Your task to perform on an android device: uninstall "NewsBreak: Local News & Alerts" Image 0: 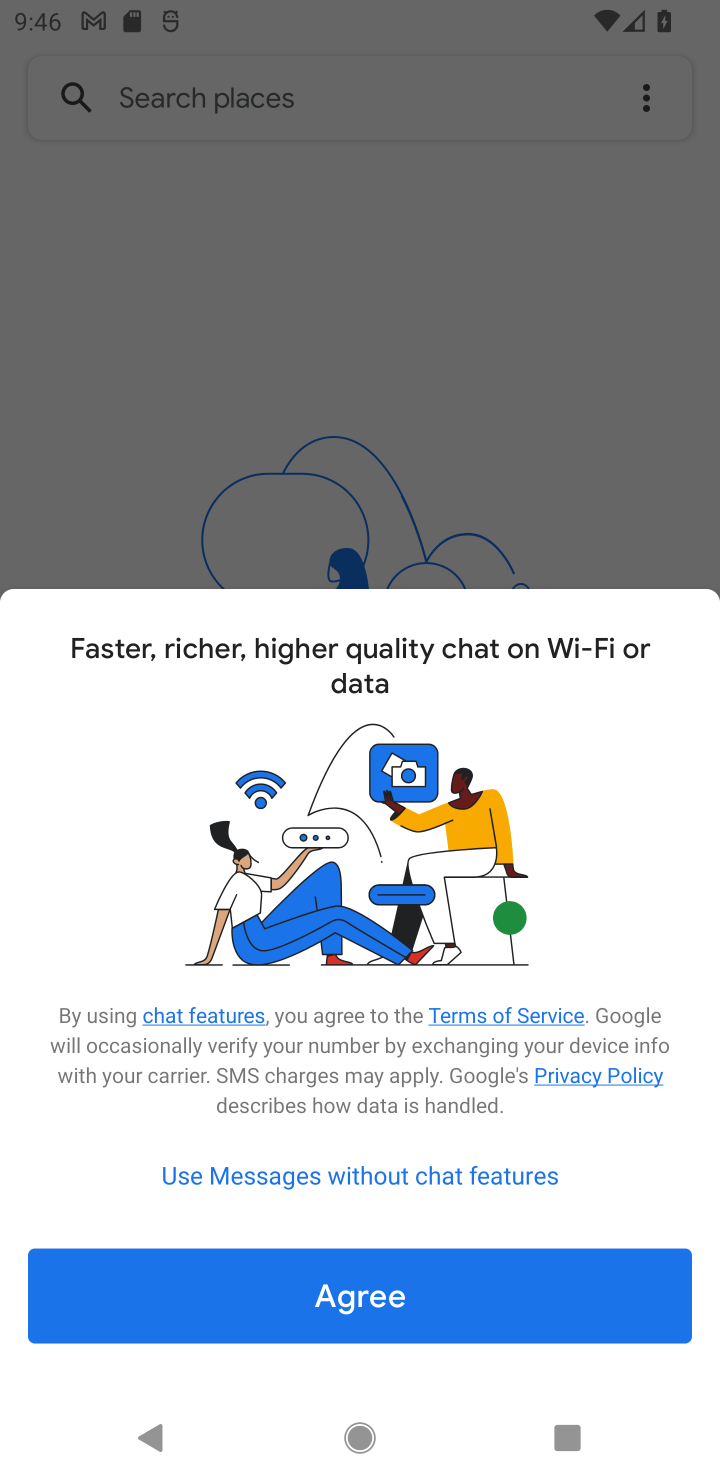
Step 0: press back button
Your task to perform on an android device: uninstall "NewsBreak: Local News & Alerts" Image 1: 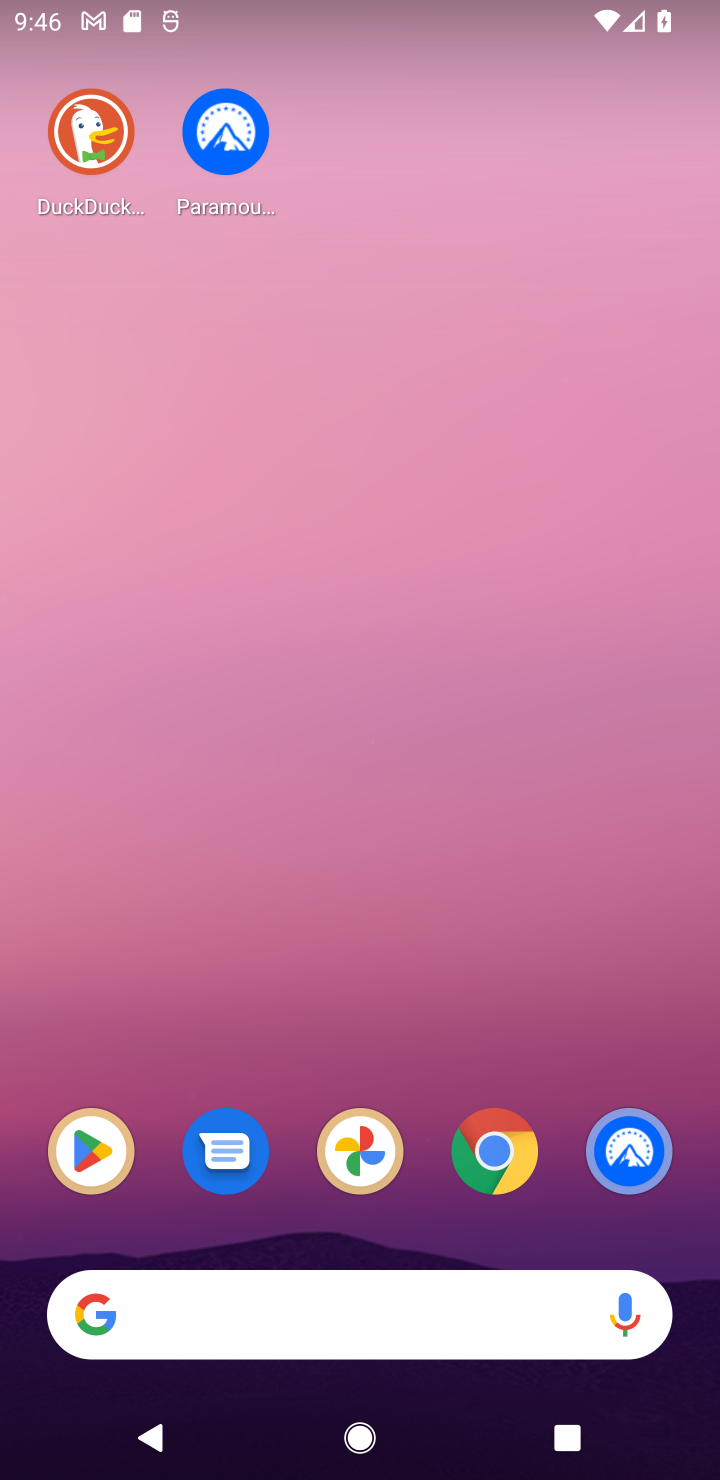
Step 1: drag from (341, 1230) to (303, 139)
Your task to perform on an android device: uninstall "NewsBreak: Local News & Alerts" Image 2: 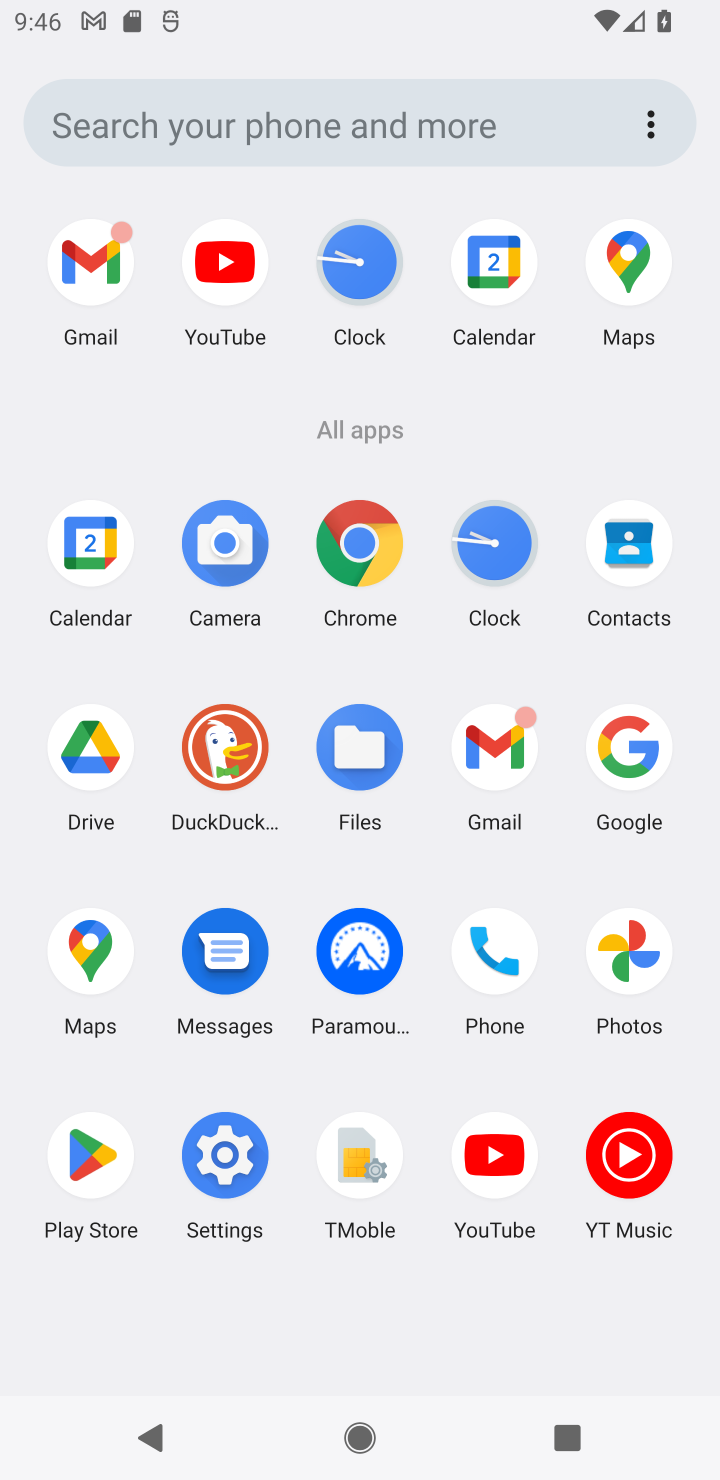
Step 2: click (103, 1152)
Your task to perform on an android device: uninstall "NewsBreak: Local News & Alerts" Image 3: 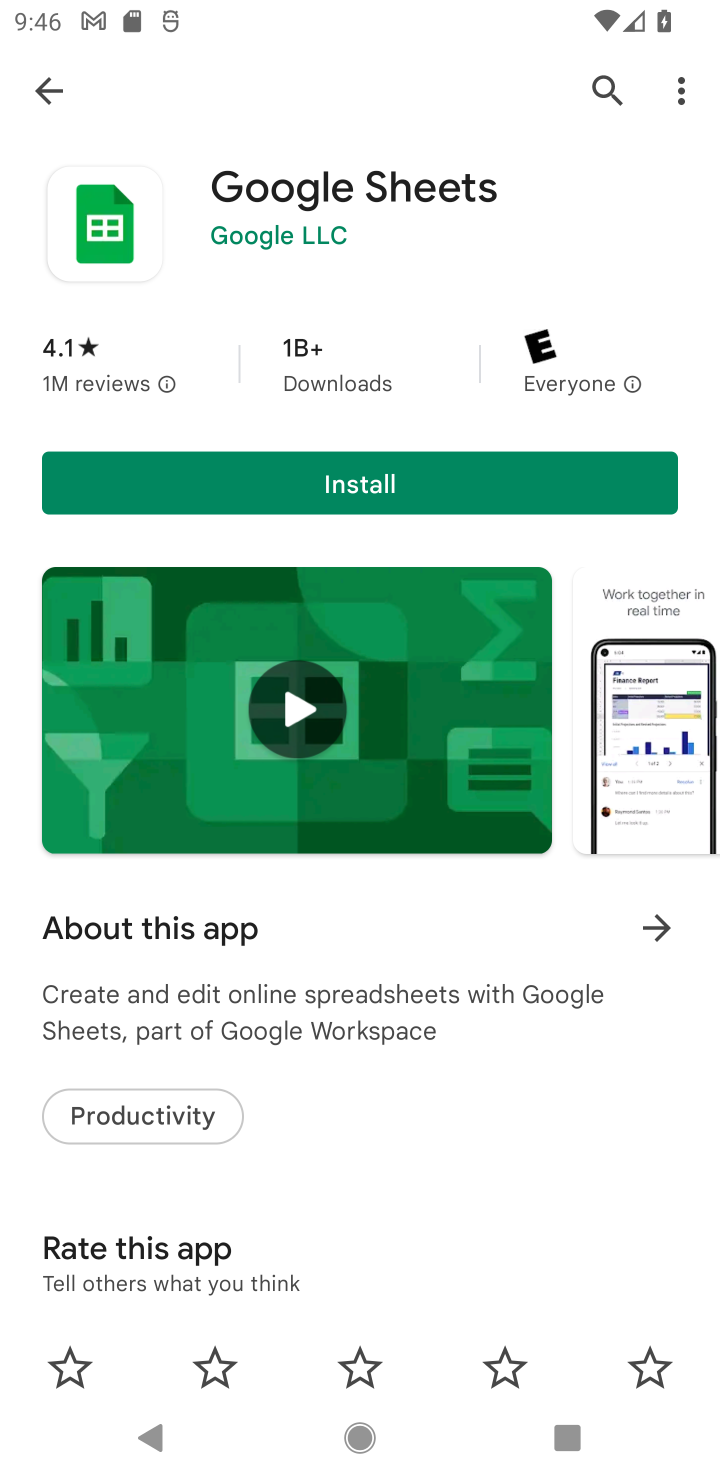
Step 3: click (43, 88)
Your task to perform on an android device: uninstall "NewsBreak: Local News & Alerts" Image 4: 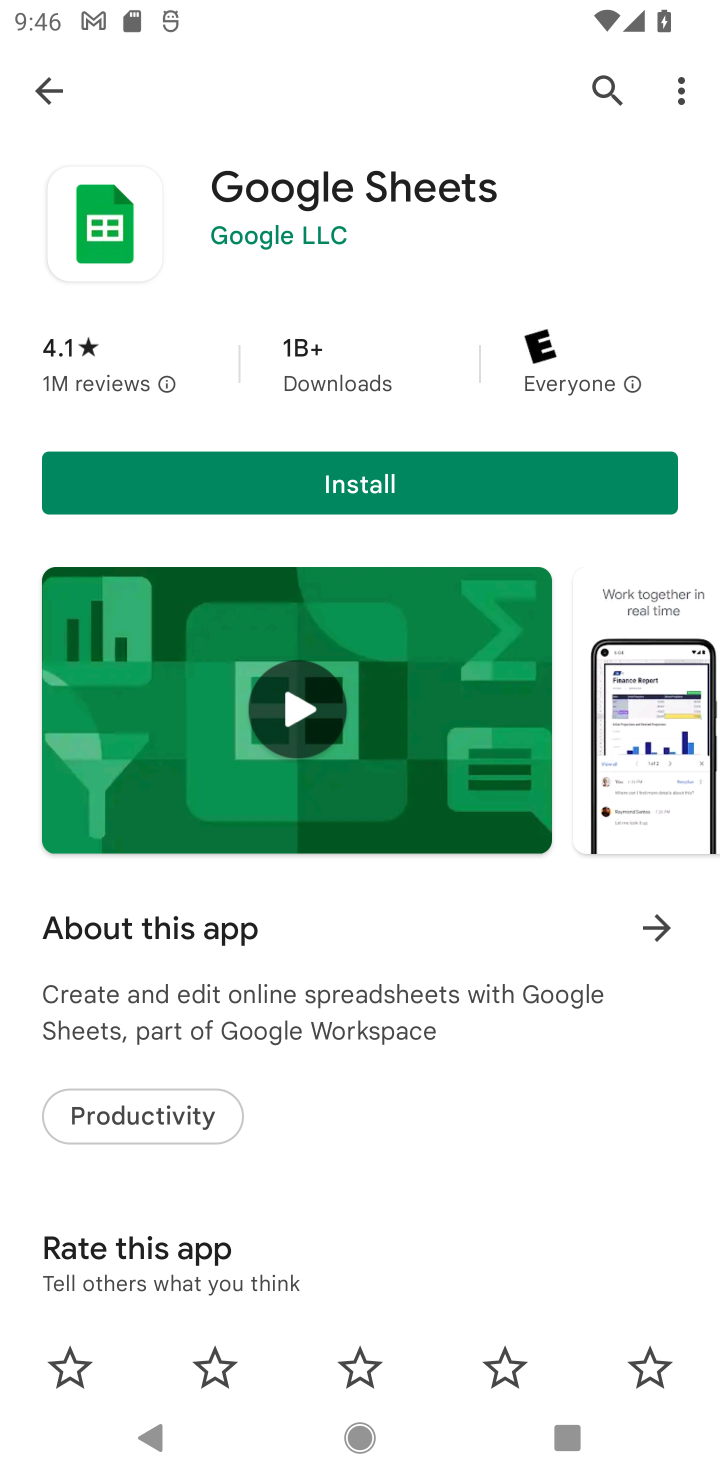
Step 4: click (58, 97)
Your task to perform on an android device: uninstall "NewsBreak: Local News & Alerts" Image 5: 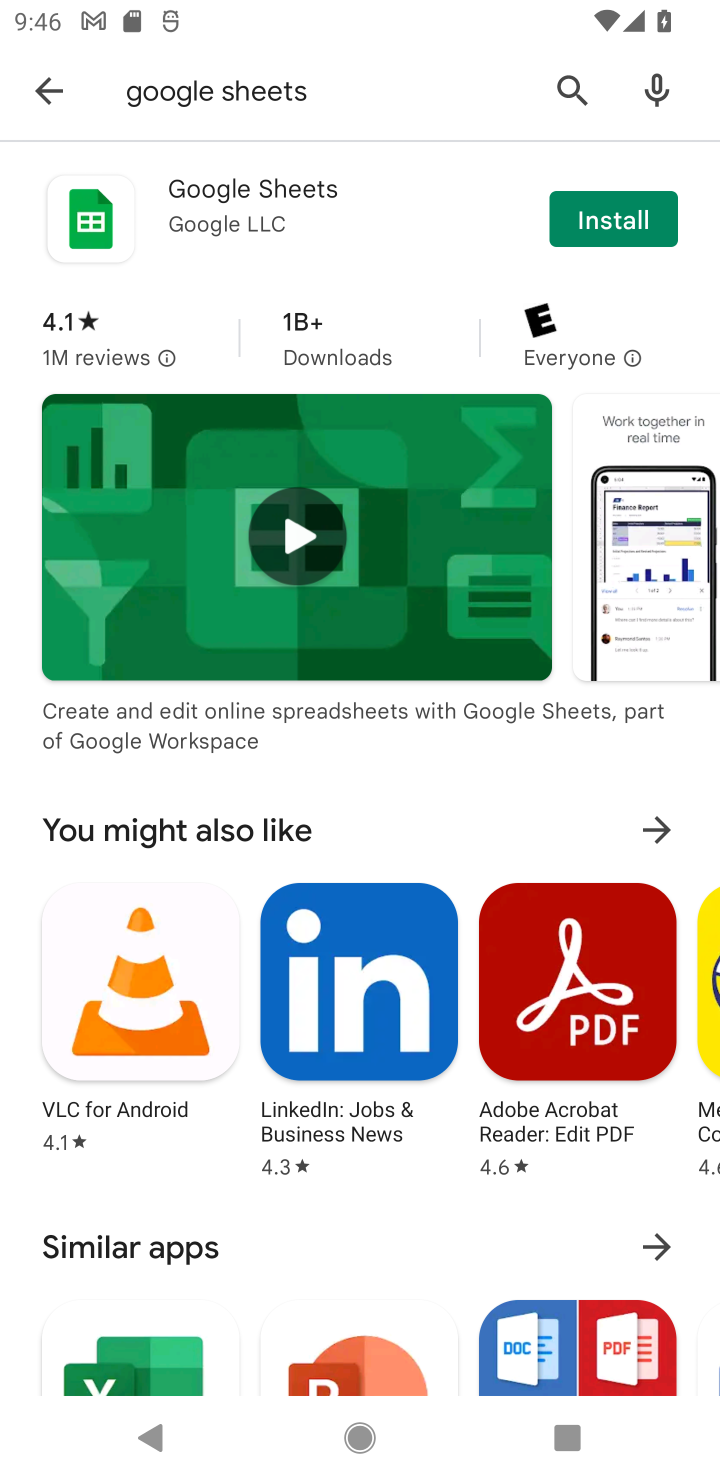
Step 5: click (563, 112)
Your task to perform on an android device: uninstall "NewsBreak: Local News & Alerts" Image 6: 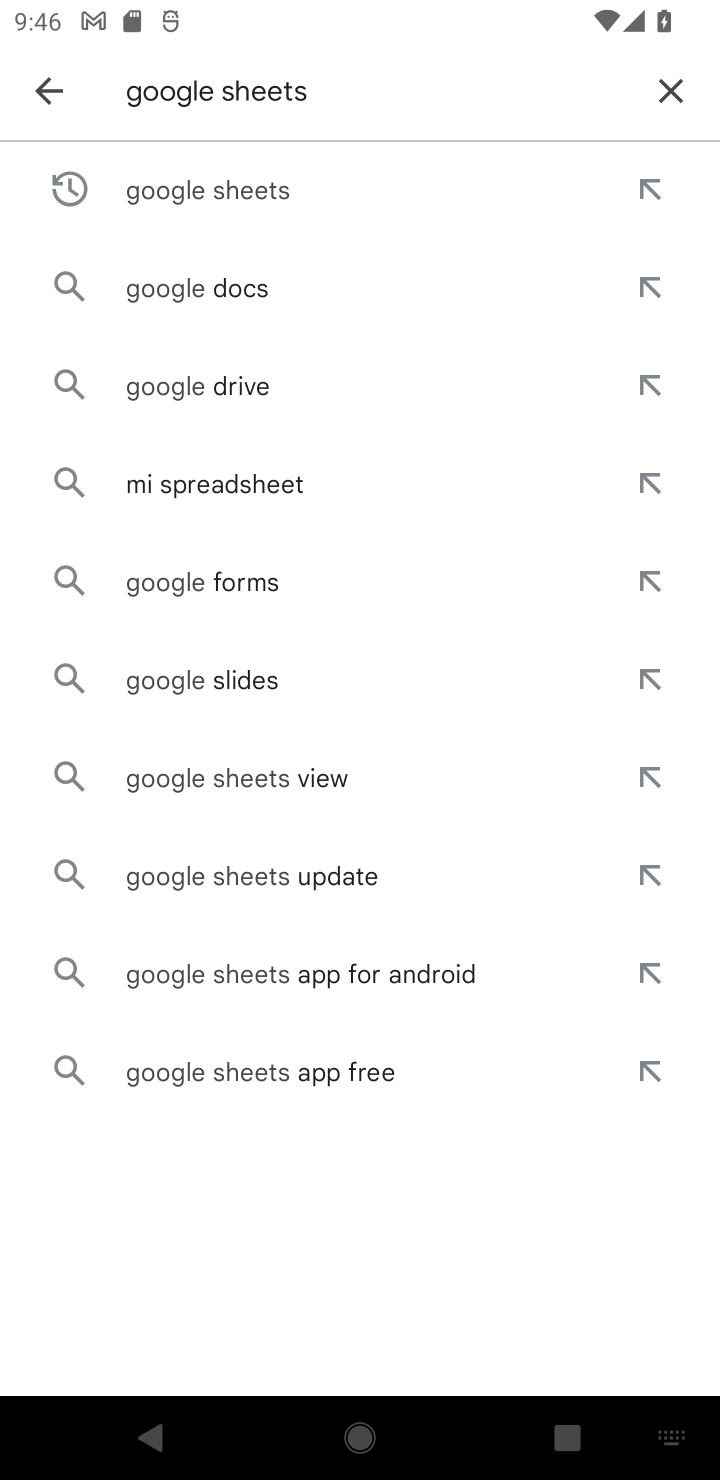
Step 6: click (670, 80)
Your task to perform on an android device: uninstall "NewsBreak: Local News & Alerts" Image 7: 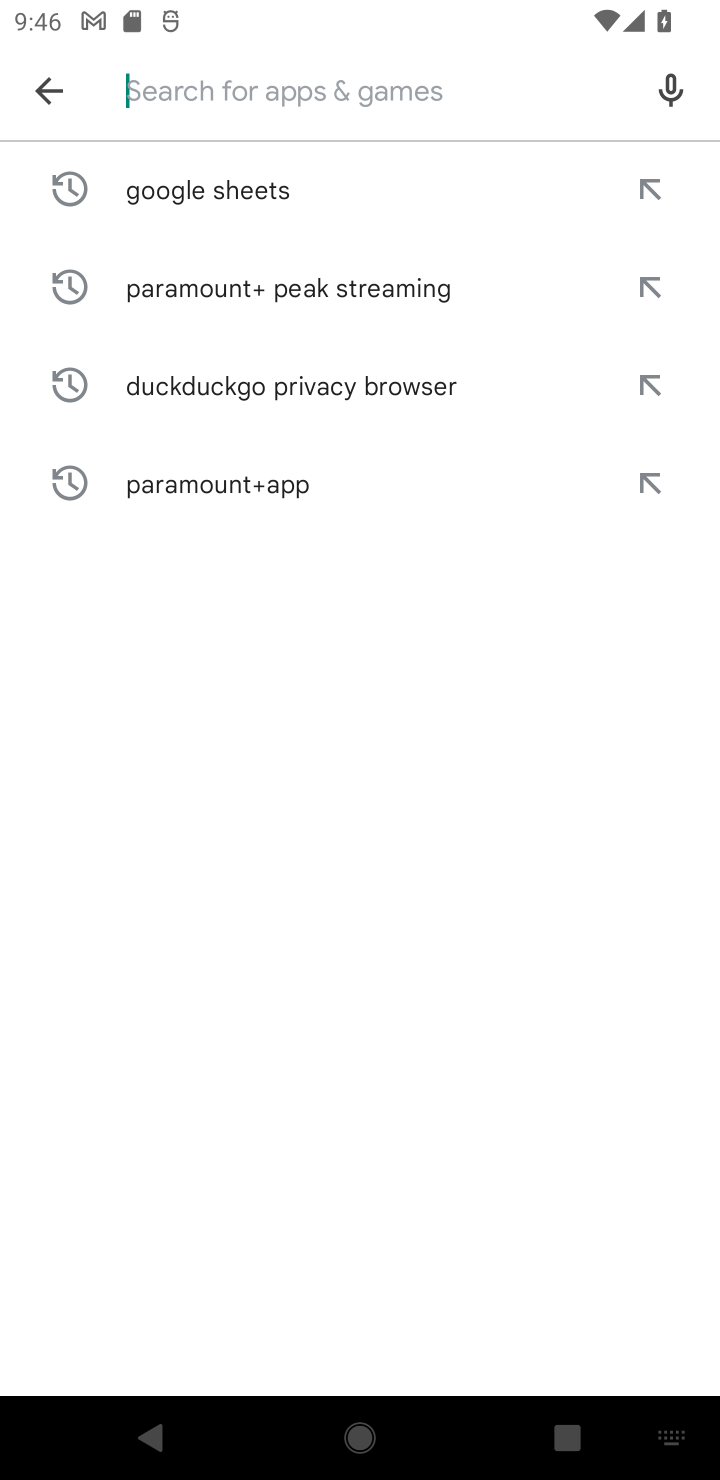
Step 7: type "NewsBreak: Local News & Alerts"
Your task to perform on an android device: uninstall "NewsBreak: Local News & Alerts" Image 8: 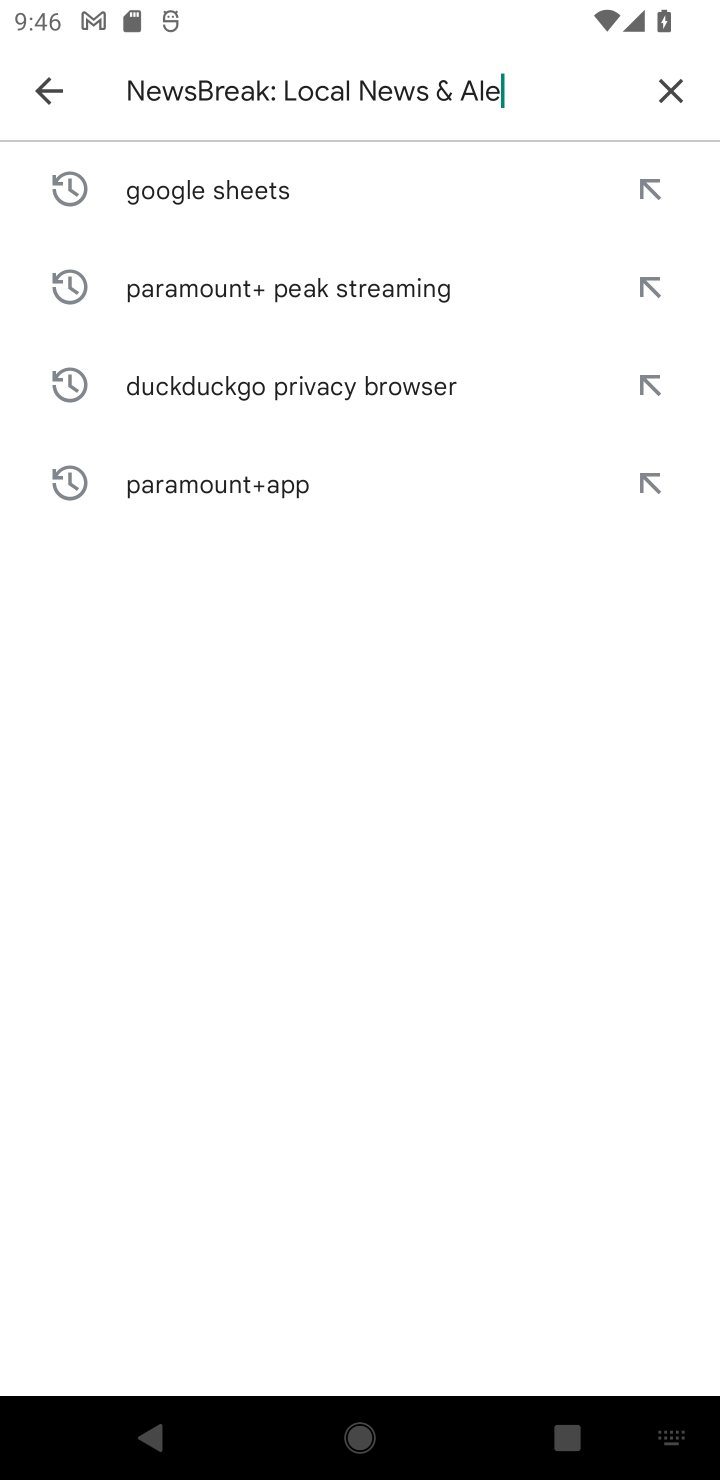
Step 8: type ""
Your task to perform on an android device: uninstall "NewsBreak: Local News & Alerts" Image 9: 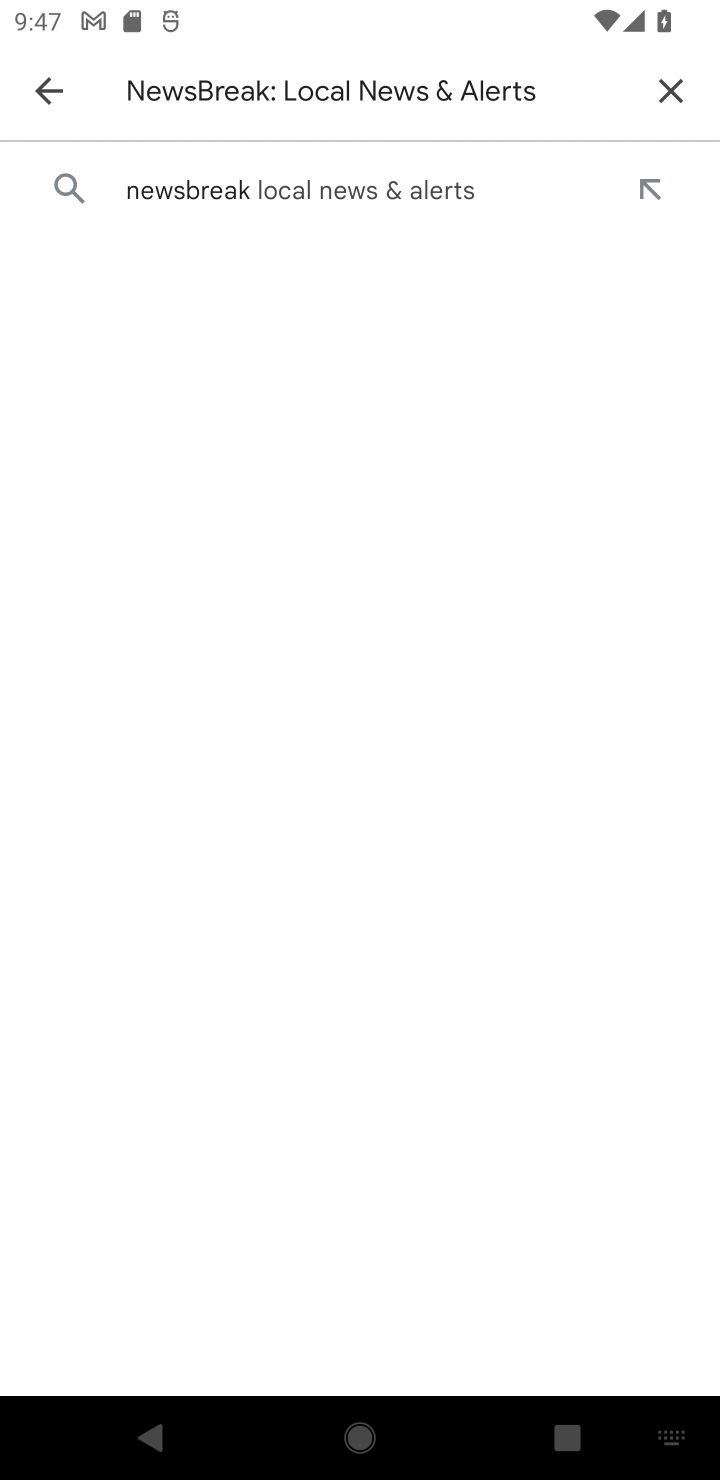
Step 9: click (395, 193)
Your task to perform on an android device: uninstall "NewsBreak: Local News & Alerts" Image 10: 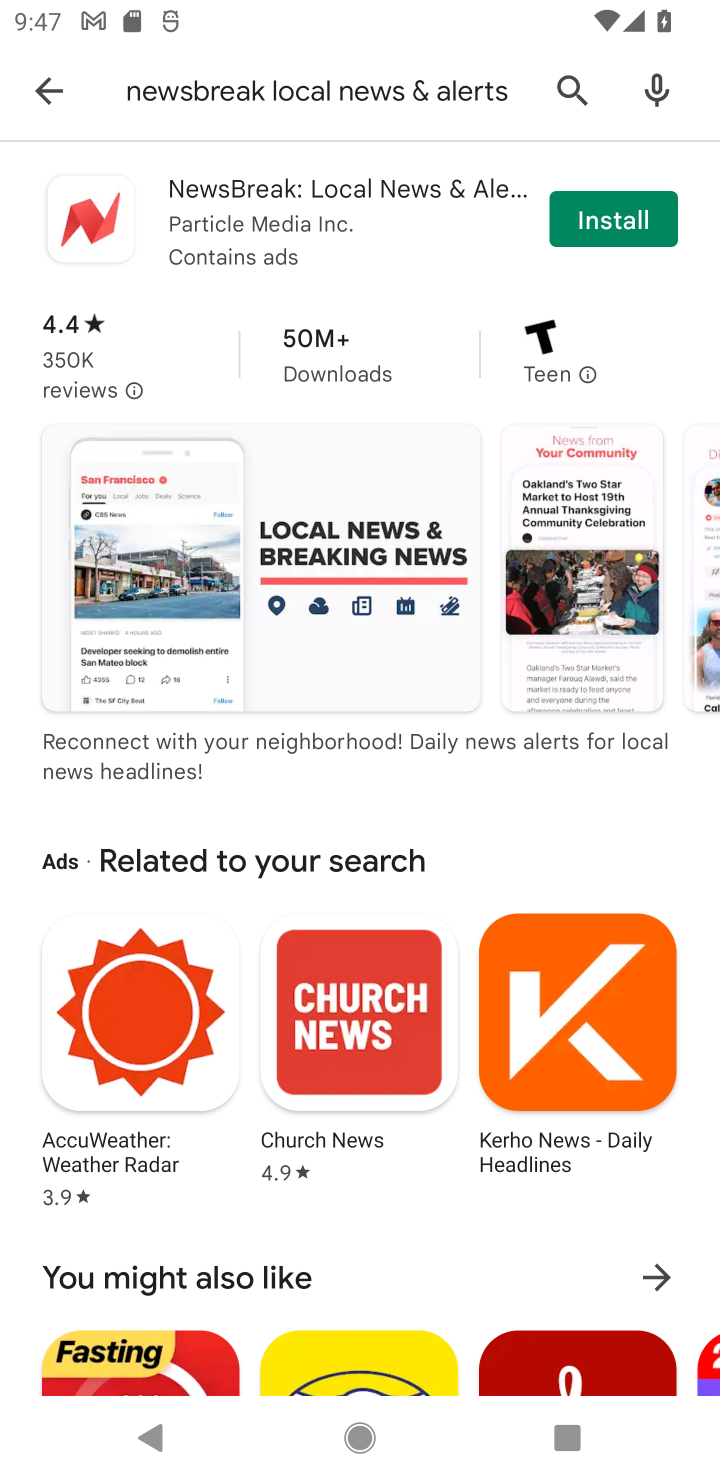
Step 10: task complete